Your task to perform on an android device: Open privacy settings Image 0: 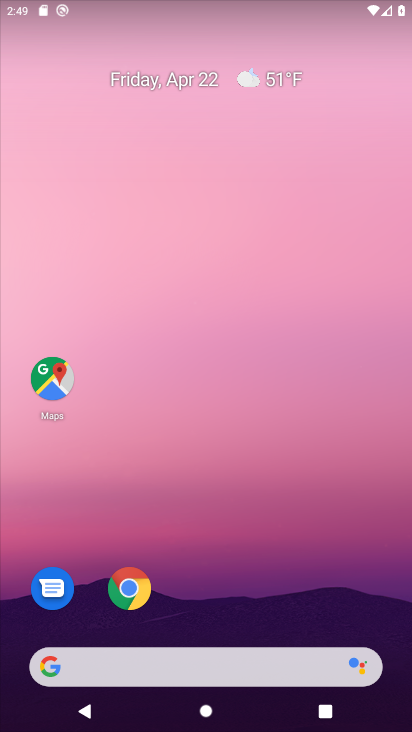
Step 0: drag from (355, 584) to (383, 61)
Your task to perform on an android device: Open privacy settings Image 1: 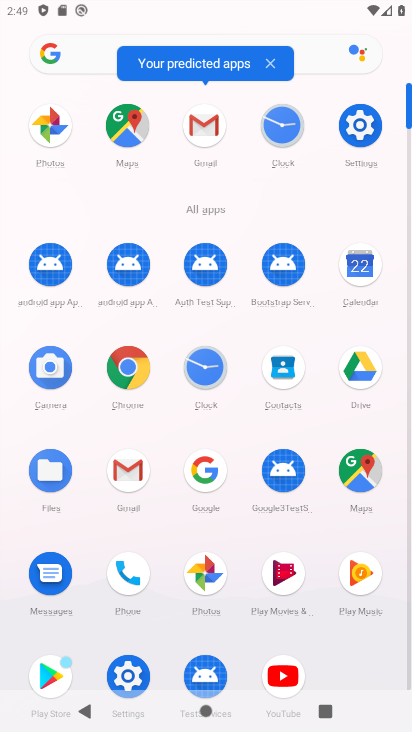
Step 1: click (361, 140)
Your task to perform on an android device: Open privacy settings Image 2: 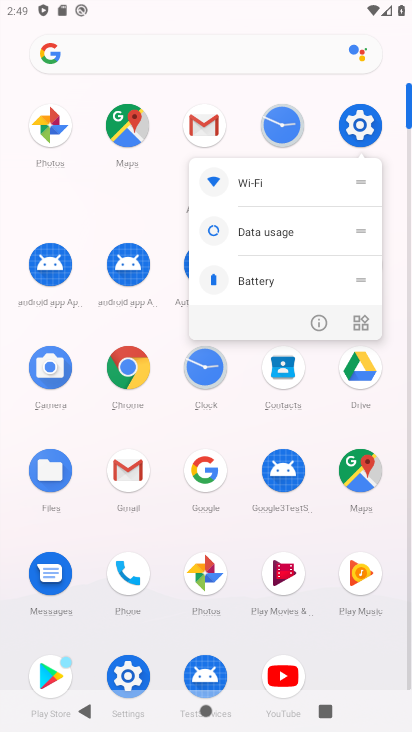
Step 2: click (346, 132)
Your task to perform on an android device: Open privacy settings Image 3: 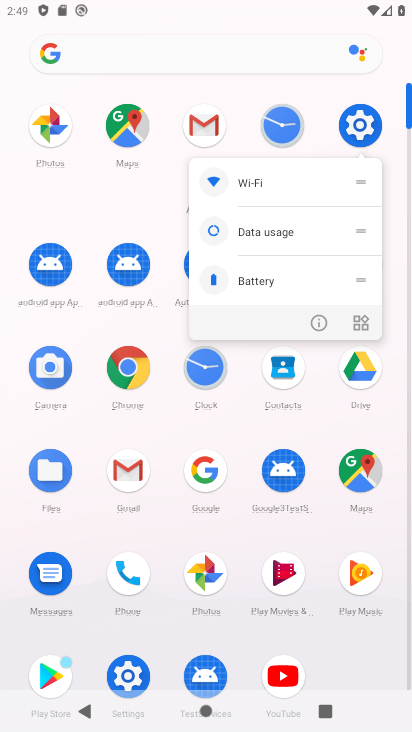
Step 3: click (360, 125)
Your task to perform on an android device: Open privacy settings Image 4: 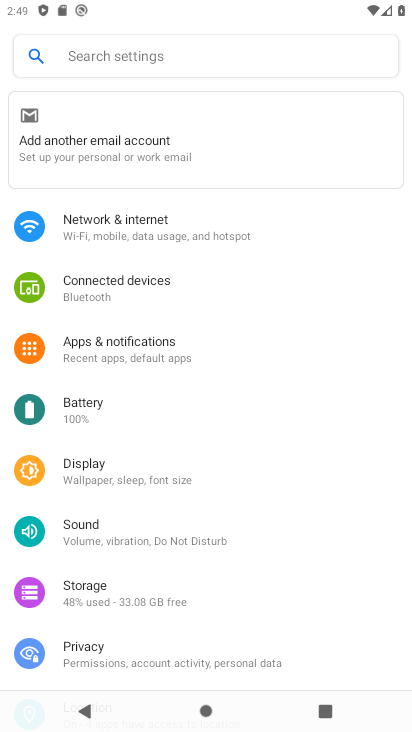
Step 4: drag from (316, 552) to (328, 435)
Your task to perform on an android device: Open privacy settings Image 5: 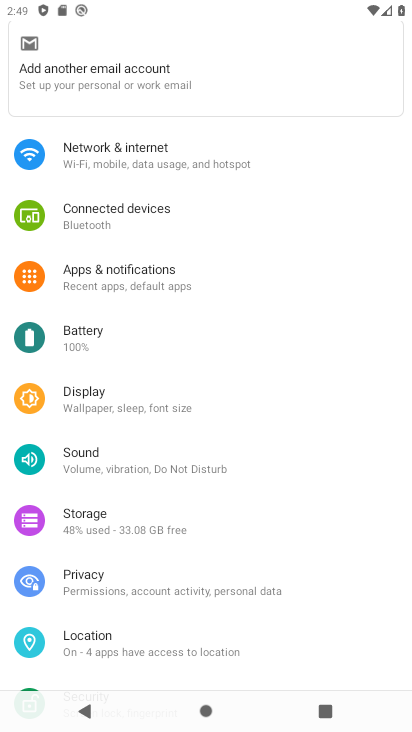
Step 5: drag from (334, 560) to (339, 411)
Your task to perform on an android device: Open privacy settings Image 6: 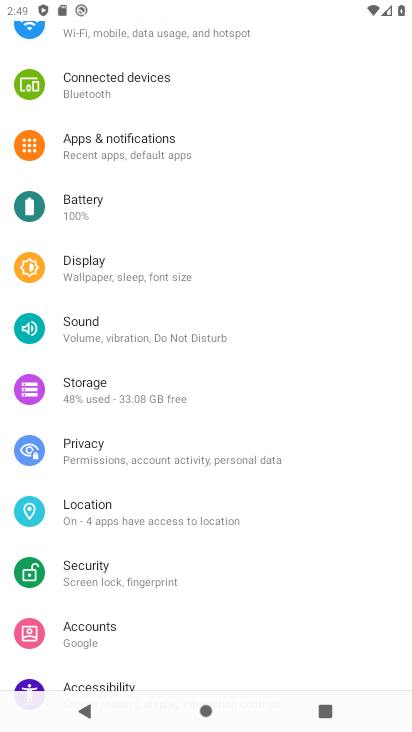
Step 6: drag from (348, 562) to (335, 421)
Your task to perform on an android device: Open privacy settings Image 7: 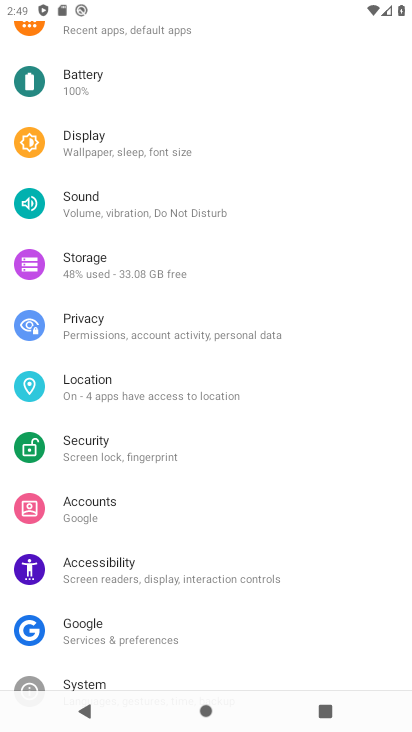
Step 7: drag from (329, 498) to (334, 388)
Your task to perform on an android device: Open privacy settings Image 8: 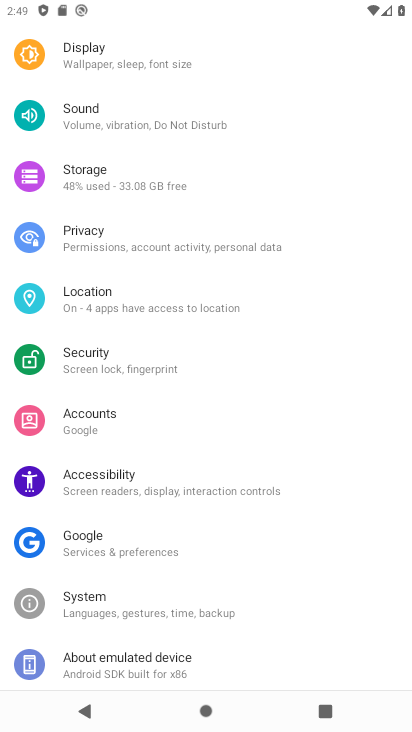
Step 8: click (241, 242)
Your task to perform on an android device: Open privacy settings Image 9: 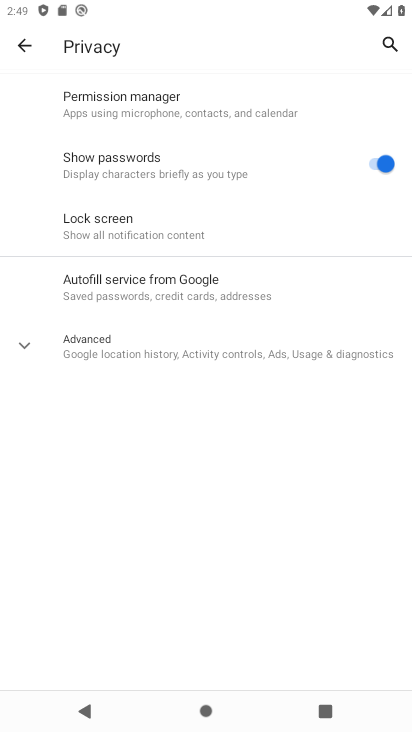
Step 9: task complete